Your task to perform on an android device: Open calendar and show me the fourth week of next month Image 0: 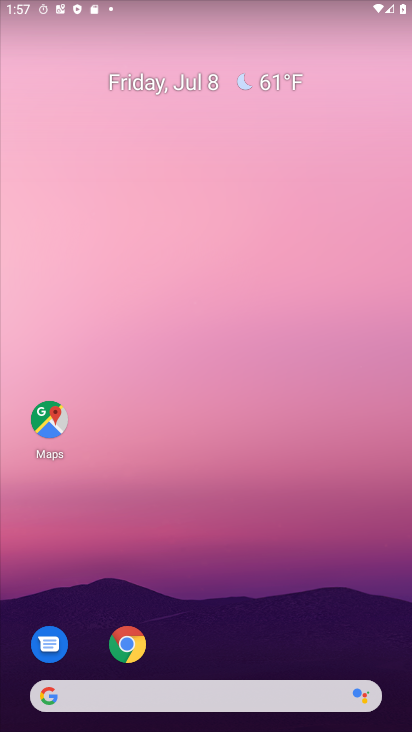
Step 0: drag from (130, 403) to (168, 58)
Your task to perform on an android device: Open calendar and show me the fourth week of next month Image 1: 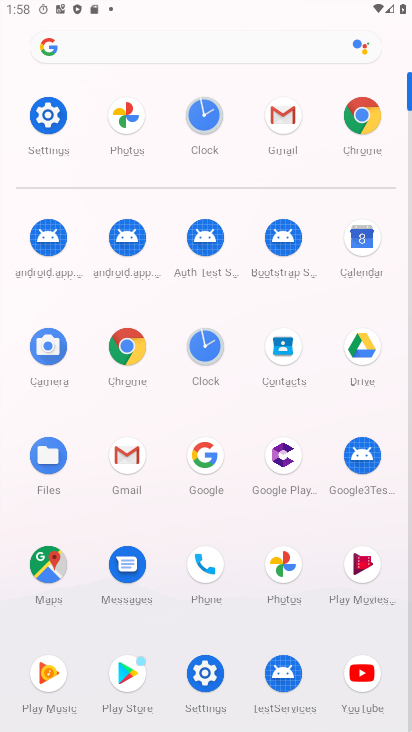
Step 1: click (361, 253)
Your task to perform on an android device: Open calendar and show me the fourth week of next month Image 2: 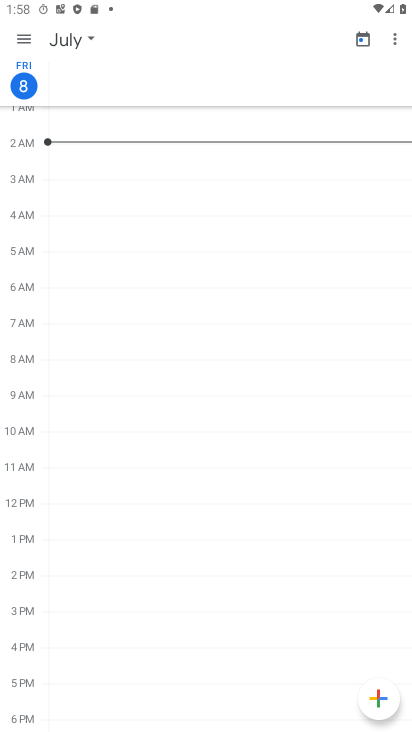
Step 2: click (167, 245)
Your task to perform on an android device: Open calendar and show me the fourth week of next month Image 3: 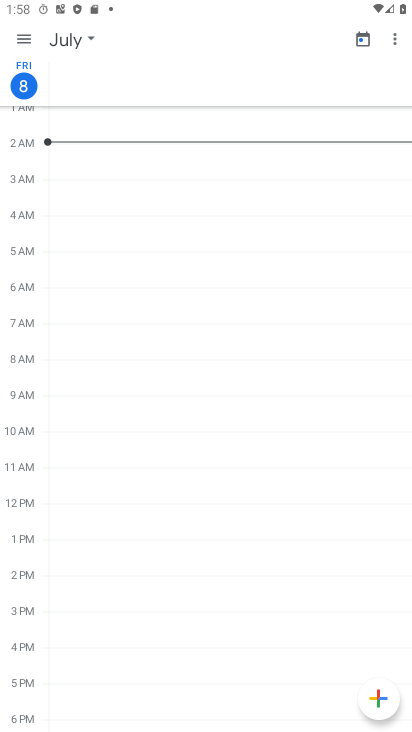
Step 3: click (23, 45)
Your task to perform on an android device: Open calendar and show me the fourth week of next month Image 4: 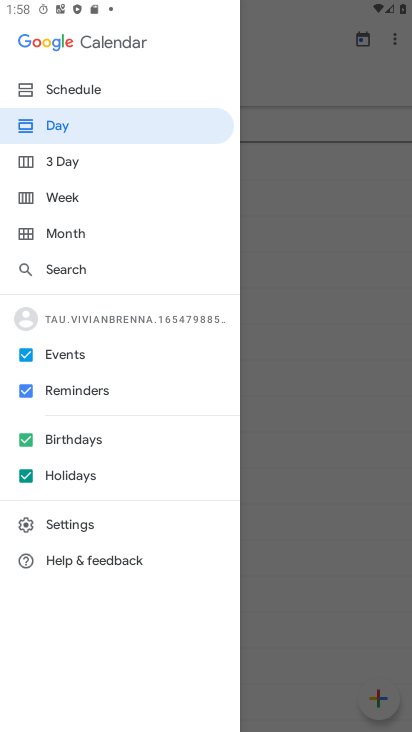
Step 4: click (79, 204)
Your task to perform on an android device: Open calendar and show me the fourth week of next month Image 5: 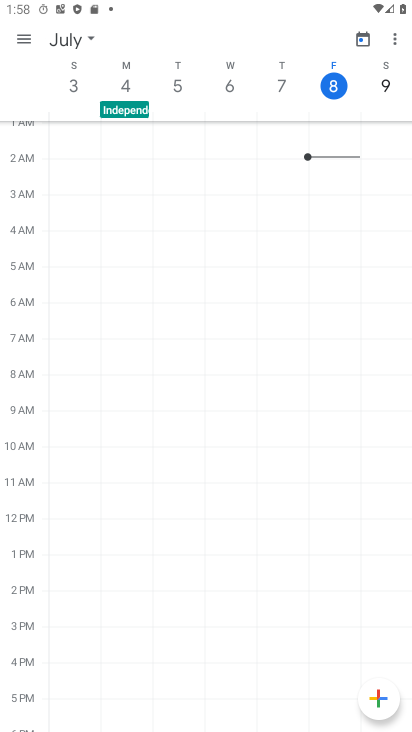
Step 5: click (76, 33)
Your task to perform on an android device: Open calendar and show me the fourth week of next month Image 6: 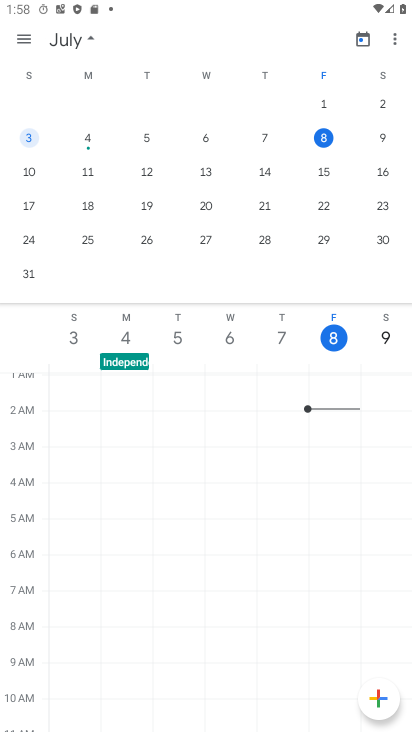
Step 6: drag from (378, 170) to (83, 241)
Your task to perform on an android device: Open calendar and show me the fourth week of next month Image 7: 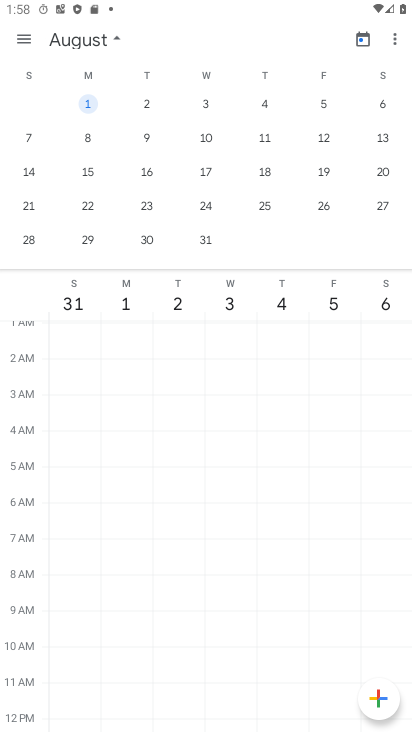
Step 7: click (26, 206)
Your task to perform on an android device: Open calendar and show me the fourth week of next month Image 8: 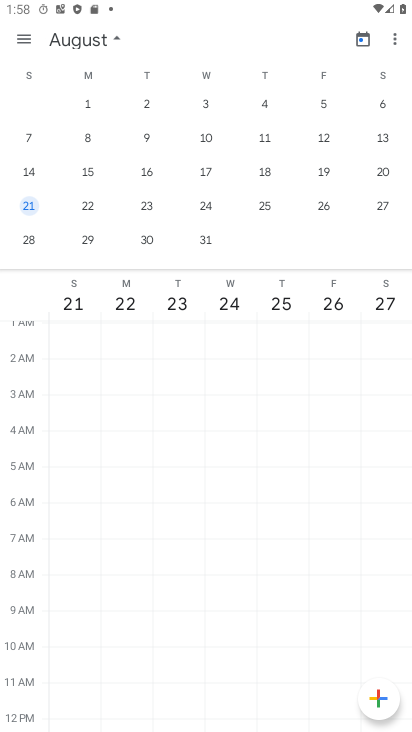
Step 8: task complete